Your task to perform on an android device: Find coffee shops on Maps Image 0: 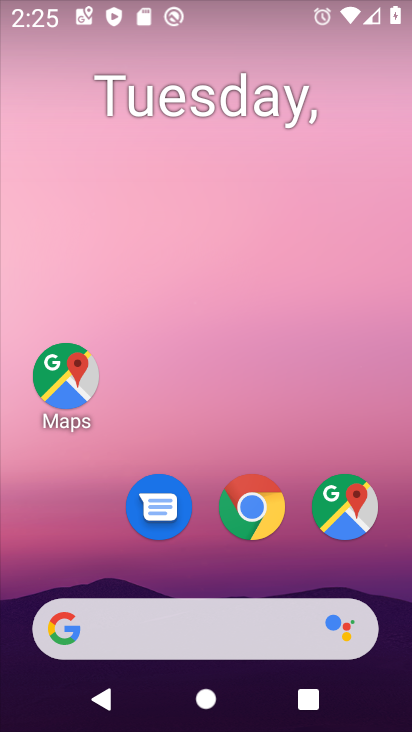
Step 0: click (260, 510)
Your task to perform on an android device: Find coffee shops on Maps Image 1: 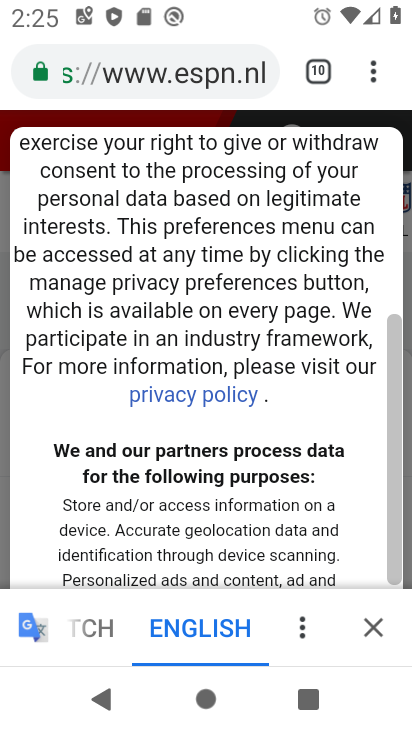
Step 1: press home button
Your task to perform on an android device: Find coffee shops on Maps Image 2: 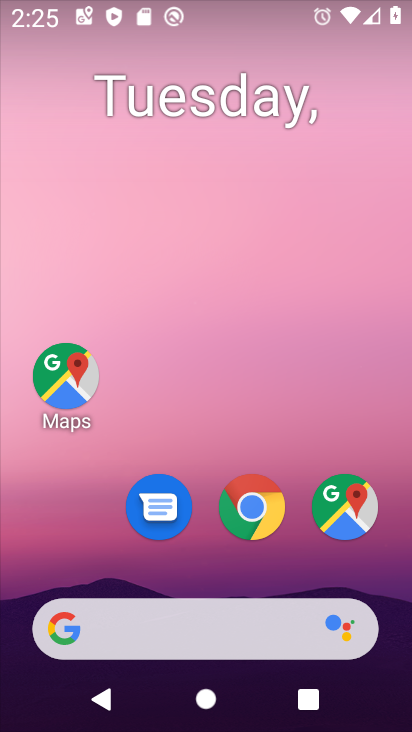
Step 2: click (338, 496)
Your task to perform on an android device: Find coffee shops on Maps Image 3: 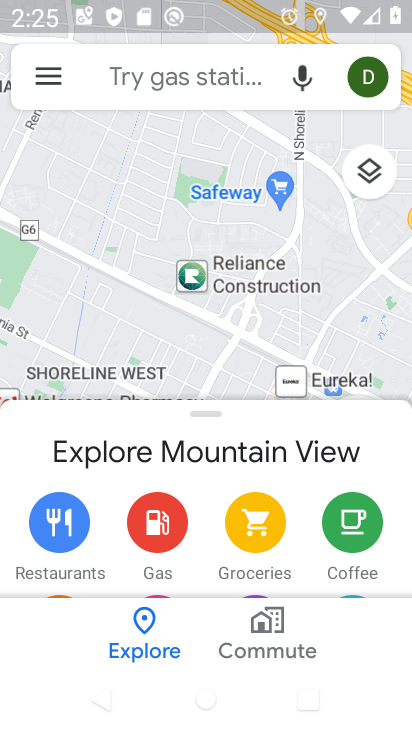
Step 3: click (210, 81)
Your task to perform on an android device: Find coffee shops on Maps Image 4: 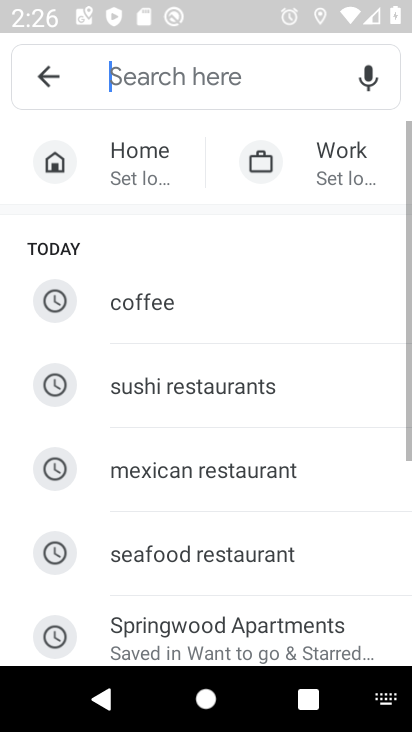
Step 4: click (132, 306)
Your task to perform on an android device: Find coffee shops on Maps Image 5: 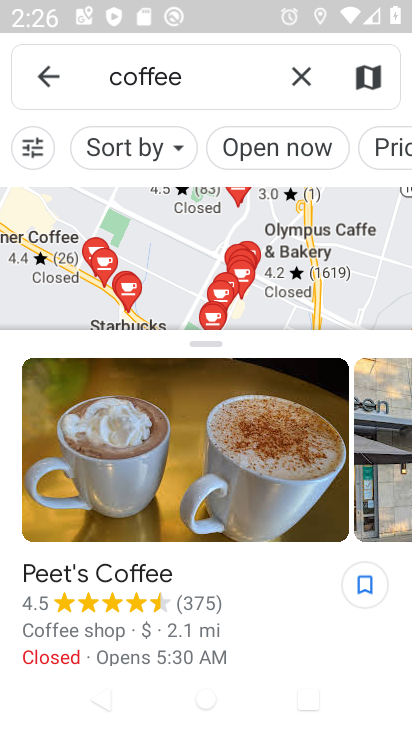
Step 5: task complete